Your task to perform on an android device: check android version Image 0: 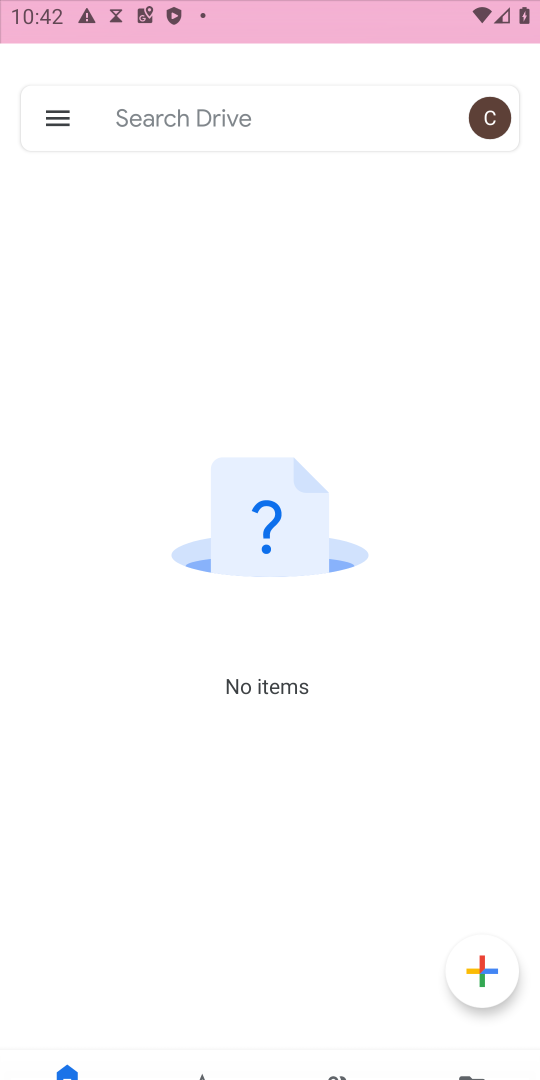
Step 0: press home button
Your task to perform on an android device: check android version Image 1: 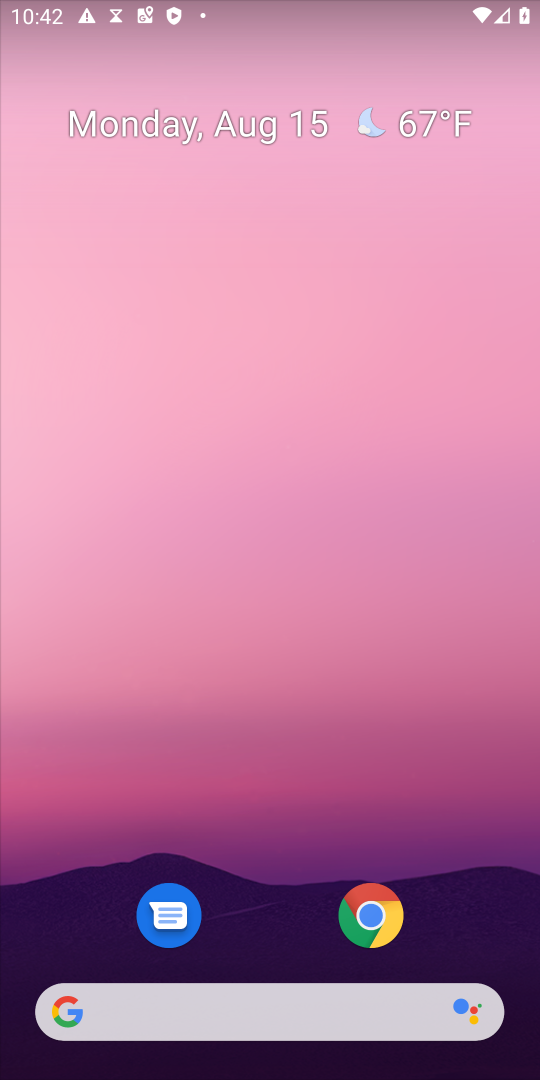
Step 1: drag from (282, 959) to (326, 304)
Your task to perform on an android device: check android version Image 2: 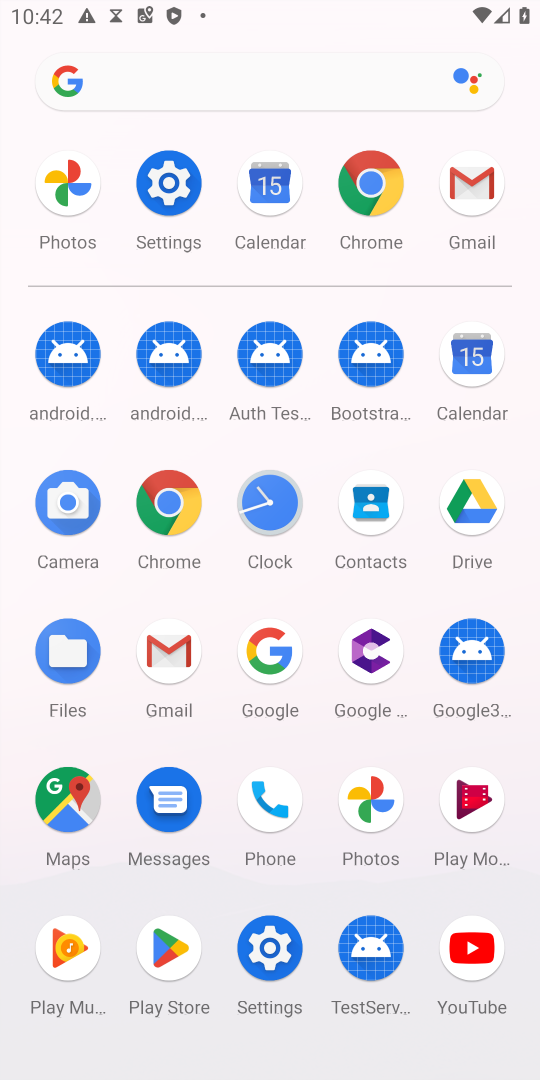
Step 2: click (177, 188)
Your task to perform on an android device: check android version Image 3: 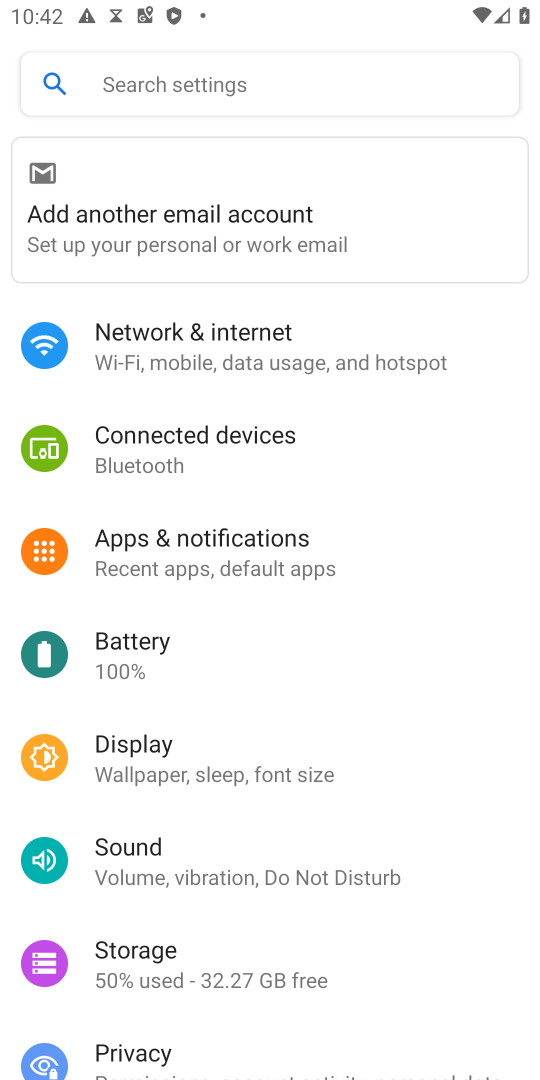
Step 3: drag from (412, 1027) to (405, 338)
Your task to perform on an android device: check android version Image 4: 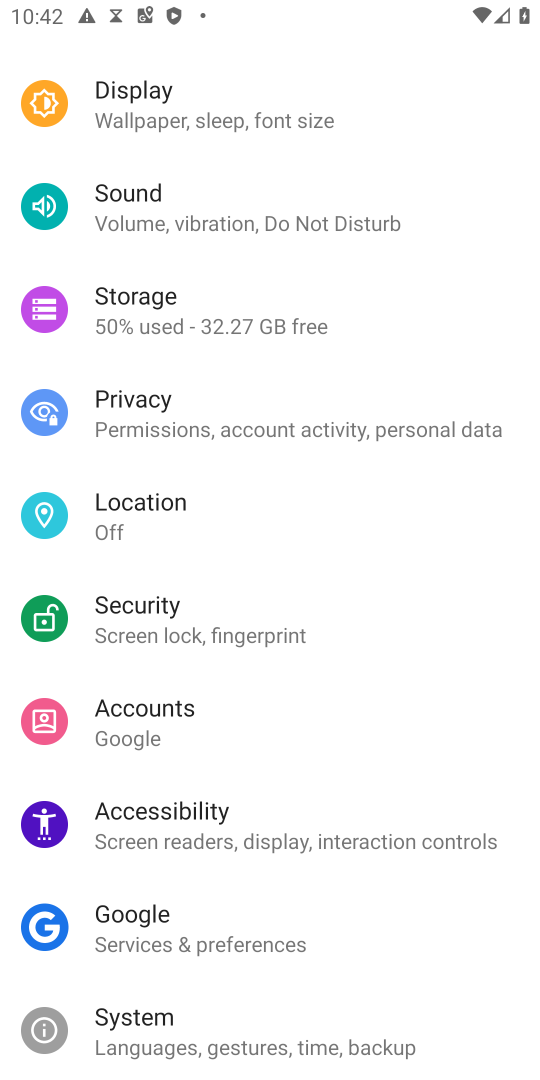
Step 4: drag from (491, 998) to (450, 444)
Your task to perform on an android device: check android version Image 5: 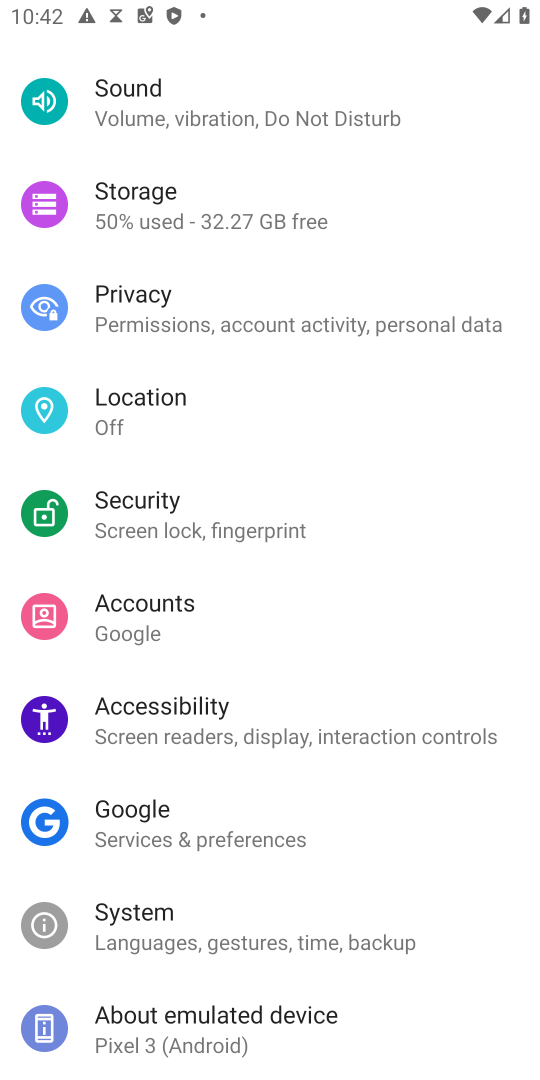
Step 5: click (209, 1023)
Your task to perform on an android device: check android version Image 6: 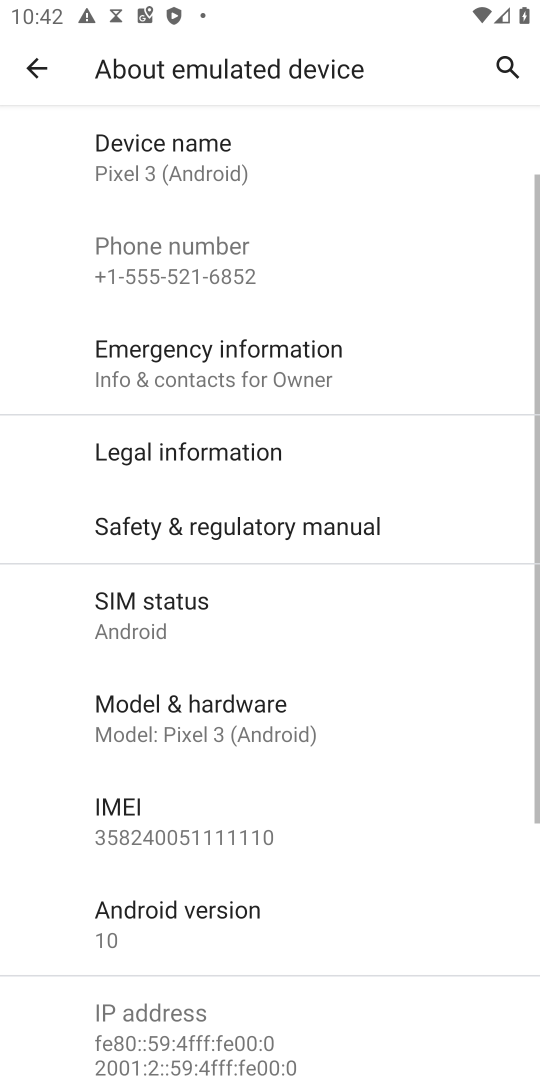
Step 6: task complete